Your task to perform on an android device: change text size in settings app Image 0: 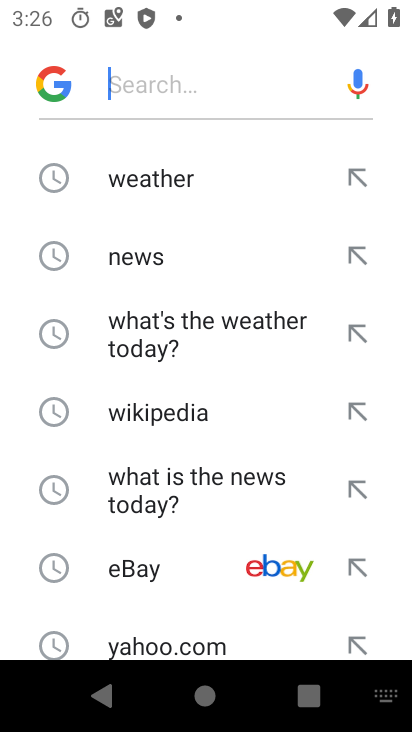
Step 0: press home button
Your task to perform on an android device: change text size in settings app Image 1: 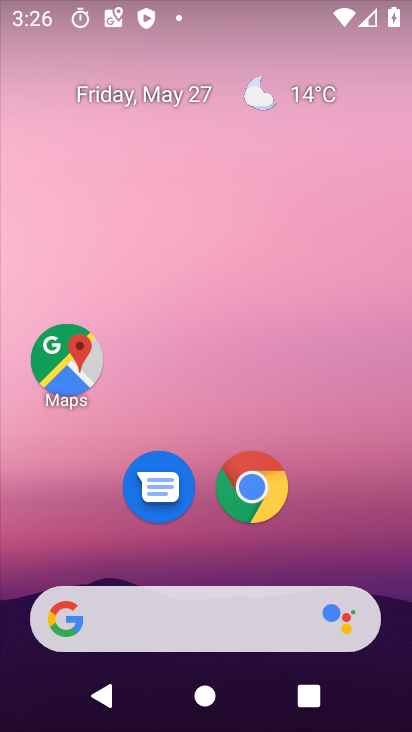
Step 1: drag from (367, 513) to (19, 214)
Your task to perform on an android device: change text size in settings app Image 2: 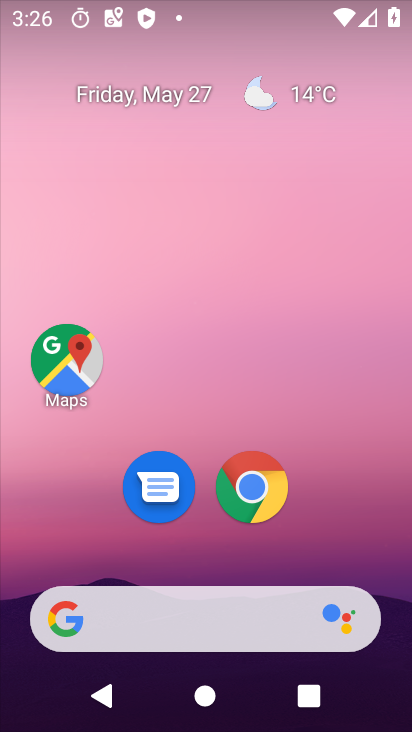
Step 2: drag from (357, 491) to (148, 96)
Your task to perform on an android device: change text size in settings app Image 3: 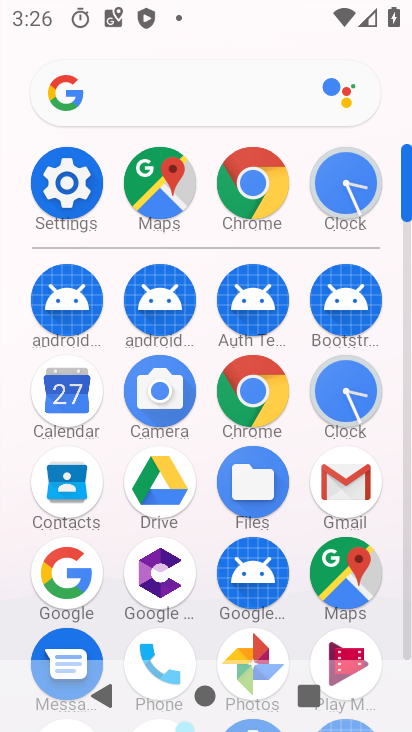
Step 3: click (65, 179)
Your task to perform on an android device: change text size in settings app Image 4: 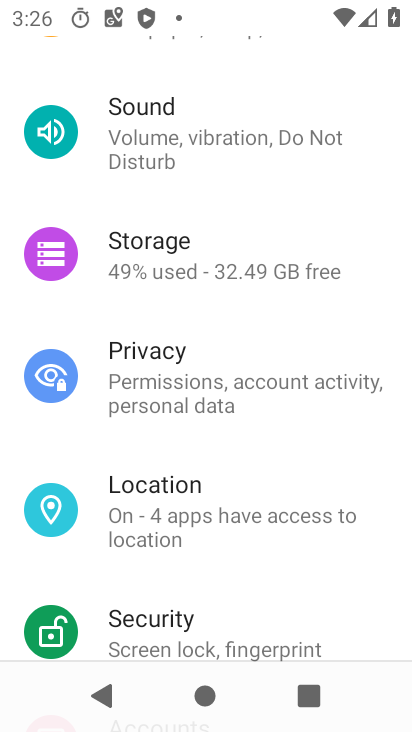
Step 4: drag from (235, 639) to (1, 212)
Your task to perform on an android device: change text size in settings app Image 5: 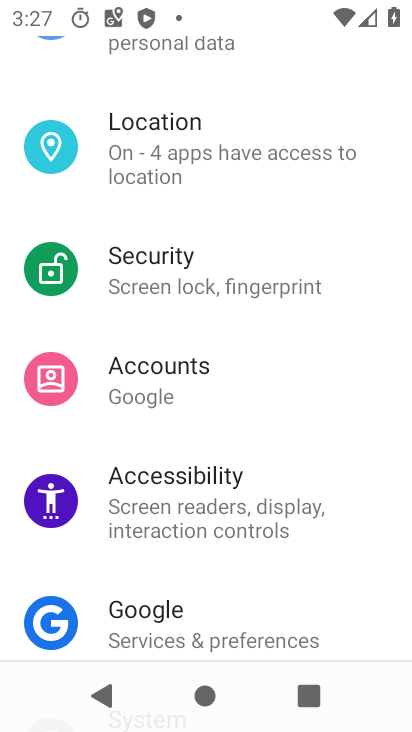
Step 5: drag from (221, 250) to (349, 709)
Your task to perform on an android device: change text size in settings app Image 6: 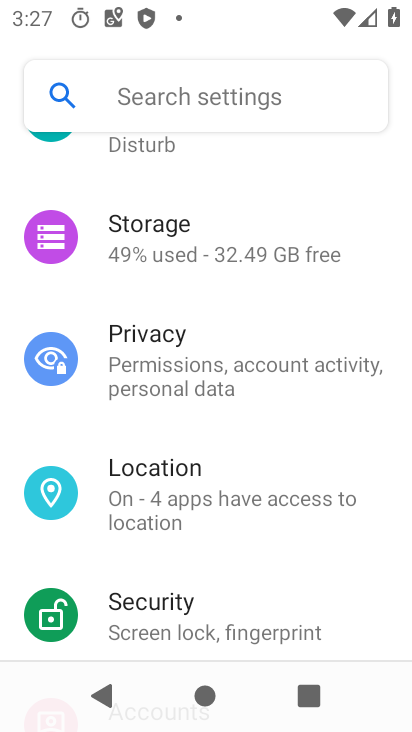
Step 6: drag from (171, 271) to (383, 720)
Your task to perform on an android device: change text size in settings app Image 7: 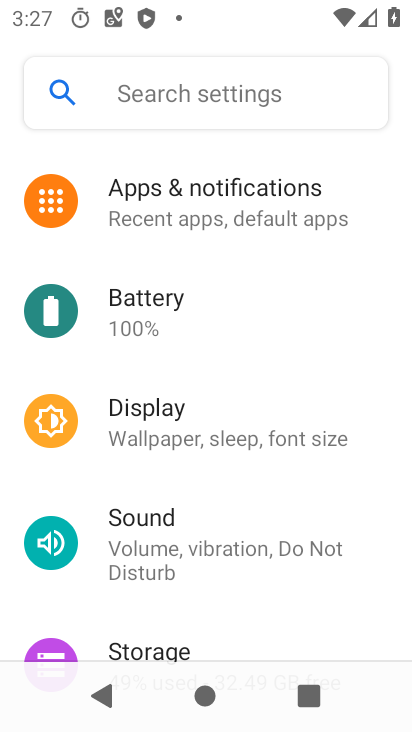
Step 7: click (200, 420)
Your task to perform on an android device: change text size in settings app Image 8: 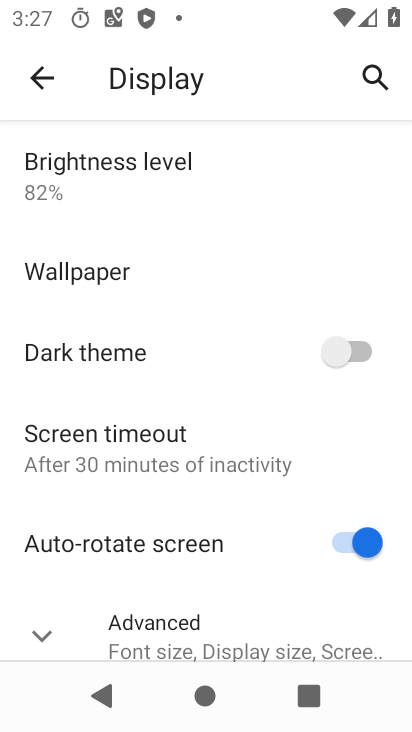
Step 8: drag from (178, 603) to (4, 96)
Your task to perform on an android device: change text size in settings app Image 9: 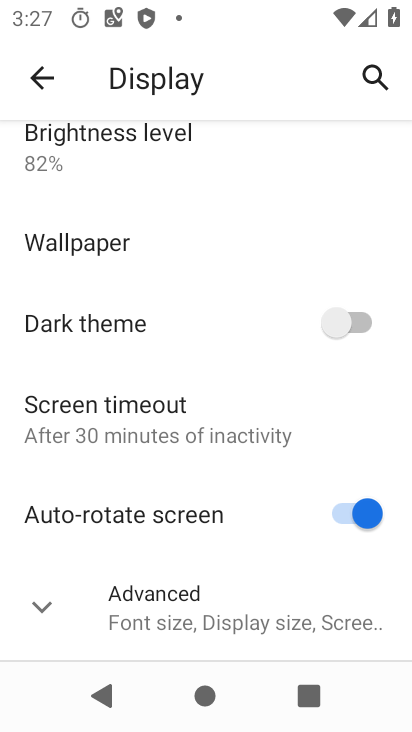
Step 9: click (181, 618)
Your task to perform on an android device: change text size in settings app Image 10: 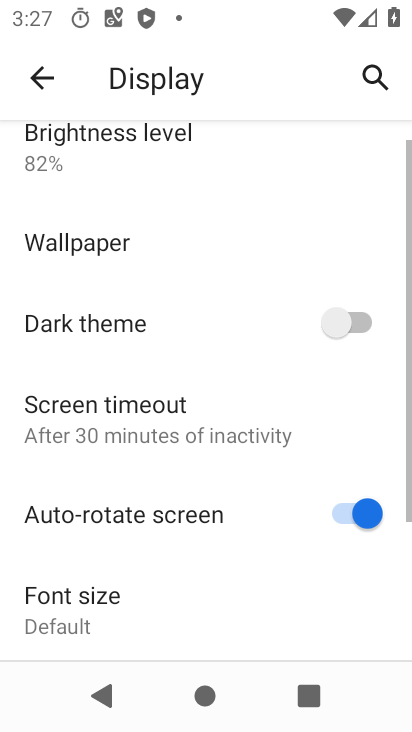
Step 10: drag from (176, 603) to (41, 231)
Your task to perform on an android device: change text size in settings app Image 11: 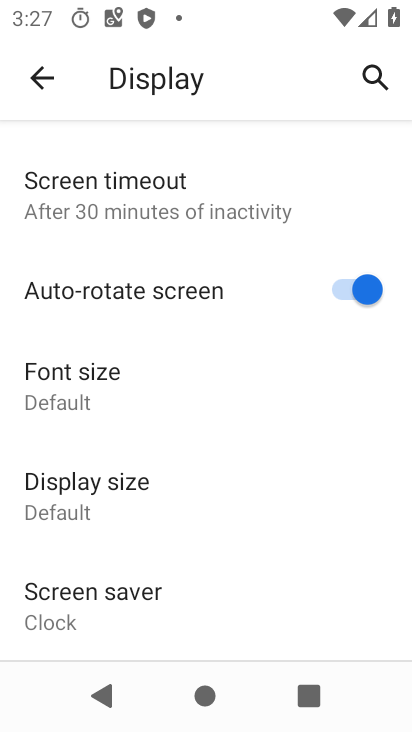
Step 11: click (98, 393)
Your task to perform on an android device: change text size in settings app Image 12: 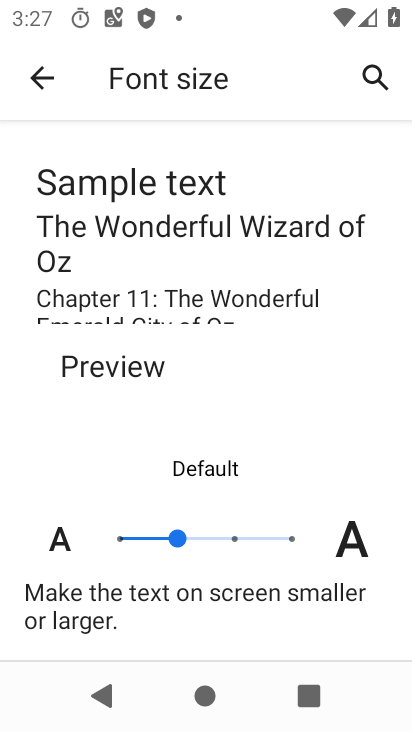
Step 12: click (156, 532)
Your task to perform on an android device: change text size in settings app Image 13: 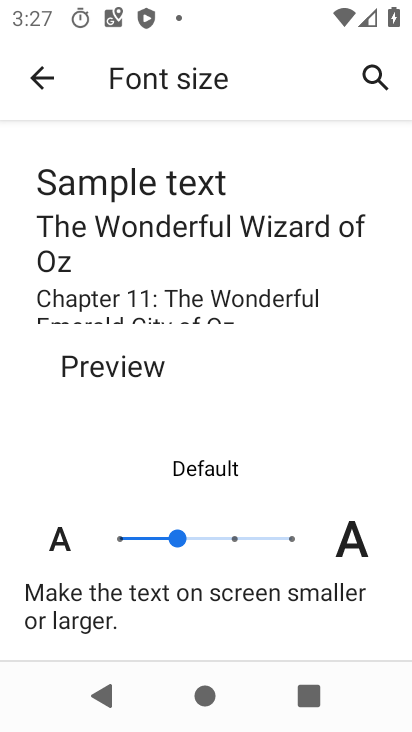
Step 13: click (124, 545)
Your task to perform on an android device: change text size in settings app Image 14: 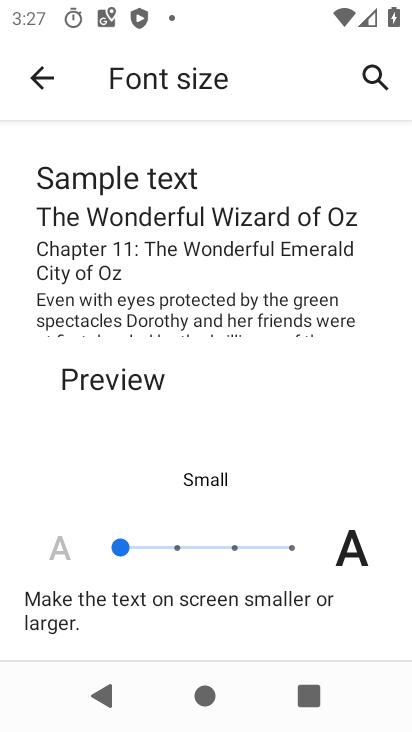
Step 14: task complete